Your task to perform on an android device: change your default location settings in chrome Image 0: 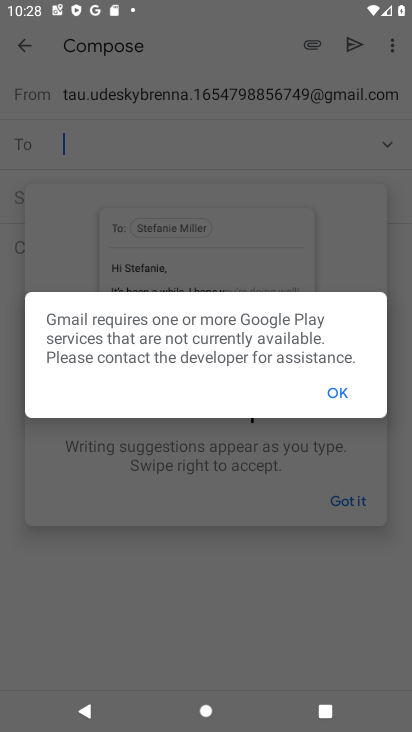
Step 0: press home button
Your task to perform on an android device: change your default location settings in chrome Image 1: 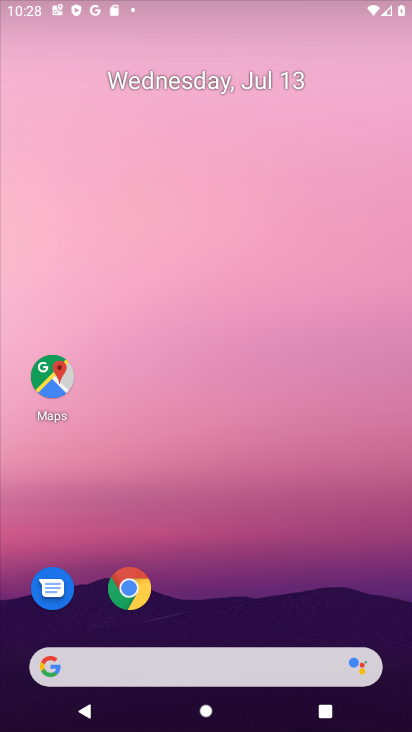
Step 1: drag from (203, 569) to (214, 47)
Your task to perform on an android device: change your default location settings in chrome Image 2: 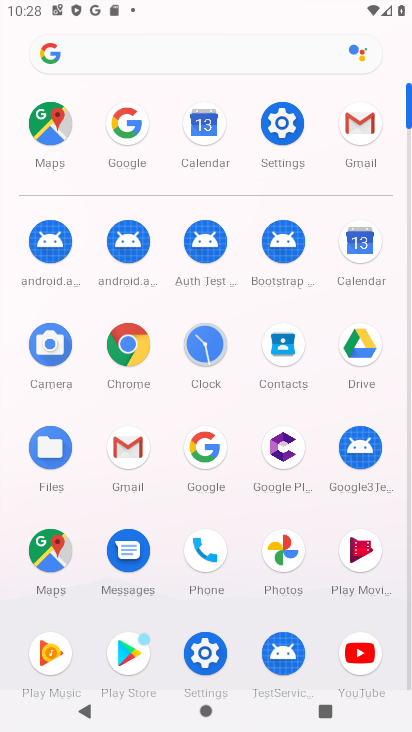
Step 2: click (128, 347)
Your task to perform on an android device: change your default location settings in chrome Image 3: 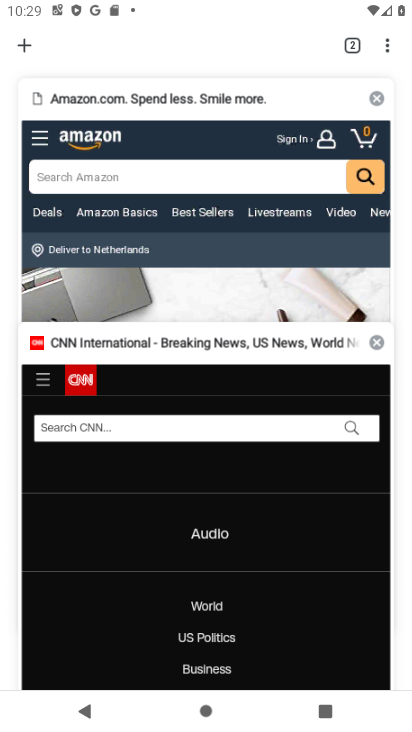
Step 3: click (381, 49)
Your task to perform on an android device: change your default location settings in chrome Image 4: 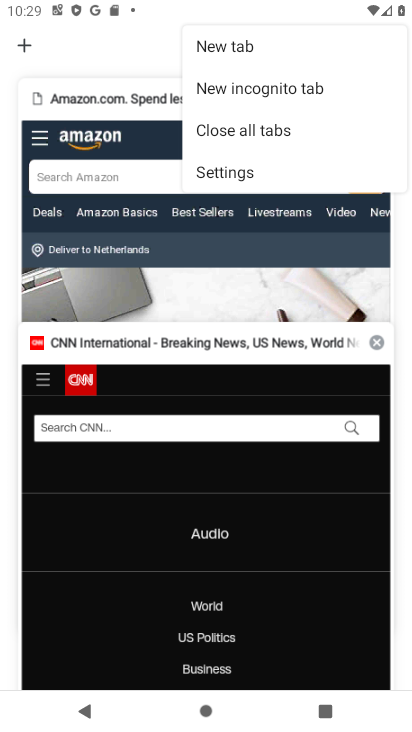
Step 4: click (223, 186)
Your task to perform on an android device: change your default location settings in chrome Image 5: 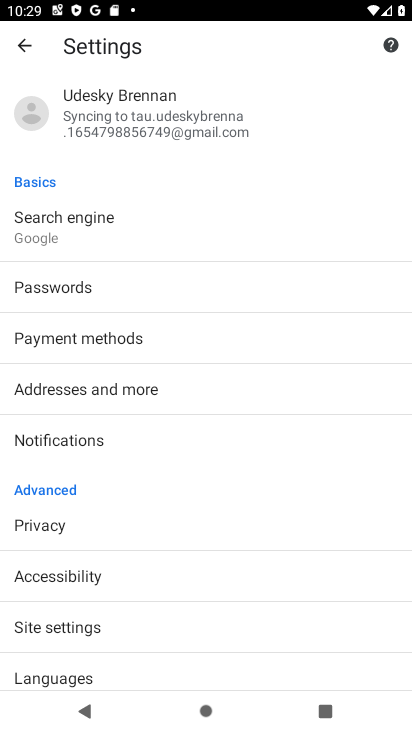
Step 5: drag from (175, 551) to (157, 186)
Your task to perform on an android device: change your default location settings in chrome Image 6: 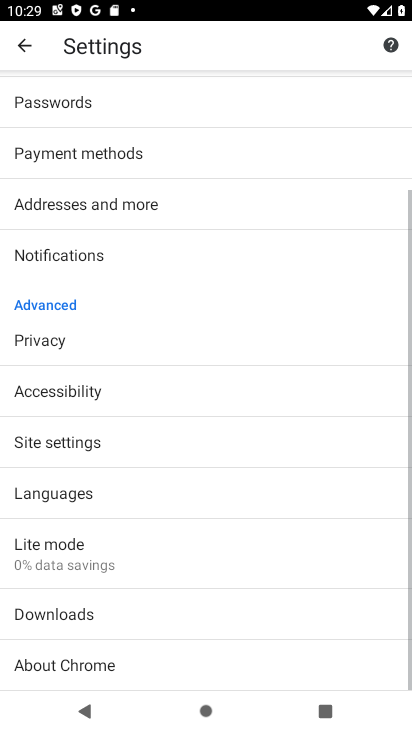
Step 6: drag from (66, 617) to (66, 414)
Your task to perform on an android device: change your default location settings in chrome Image 7: 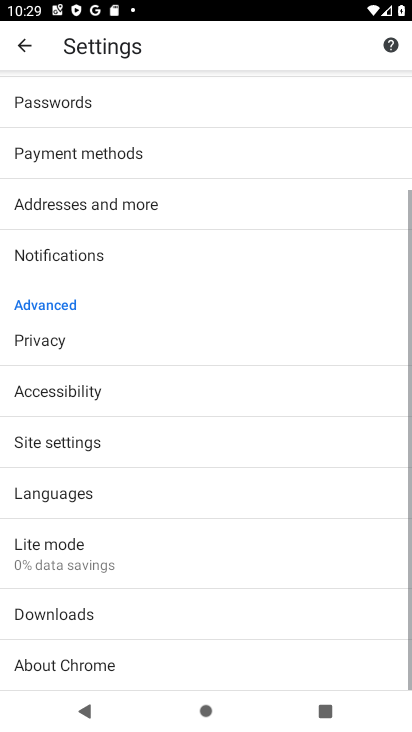
Step 7: click (81, 439)
Your task to perform on an android device: change your default location settings in chrome Image 8: 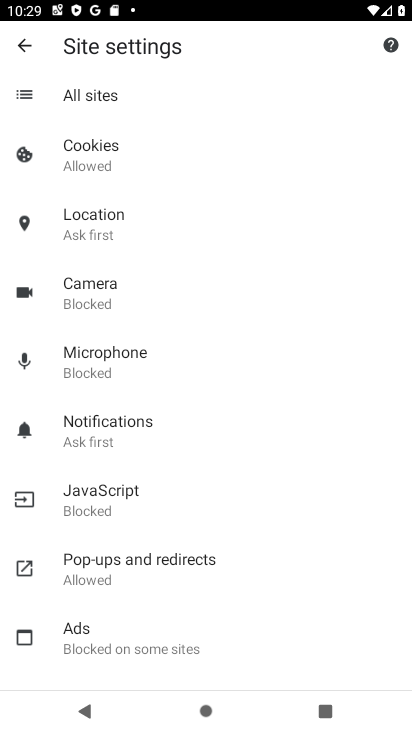
Step 8: click (112, 225)
Your task to perform on an android device: change your default location settings in chrome Image 9: 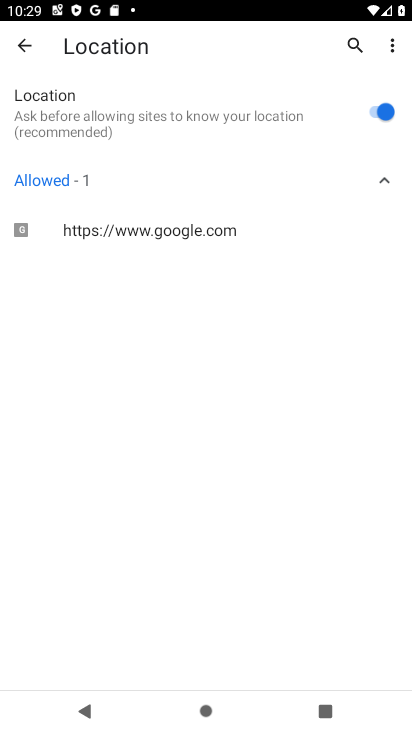
Step 9: click (380, 113)
Your task to perform on an android device: change your default location settings in chrome Image 10: 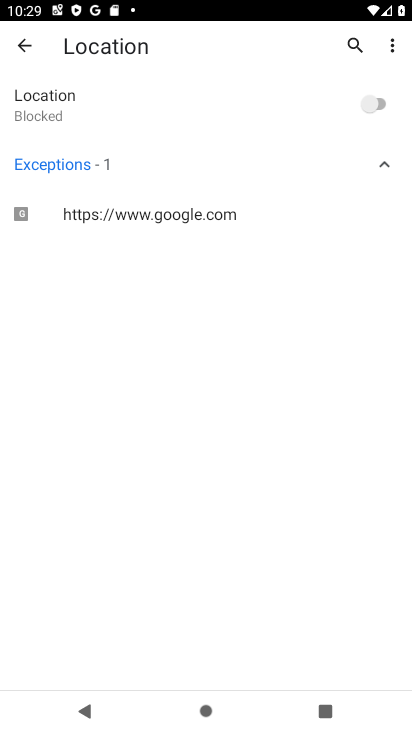
Step 10: task complete